Your task to perform on an android device: set an alarm Image 0: 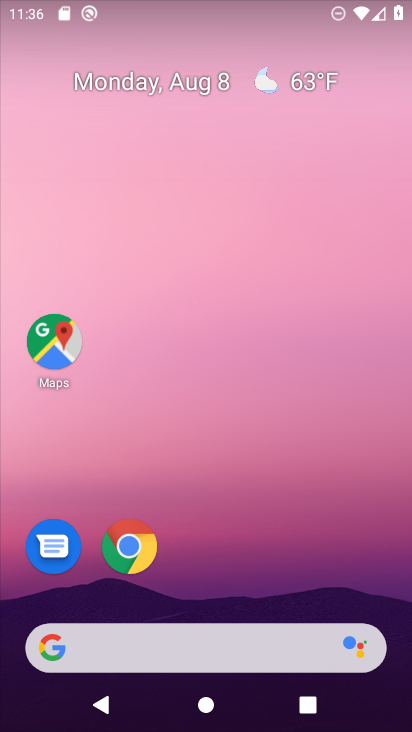
Step 0: press home button
Your task to perform on an android device: set an alarm Image 1: 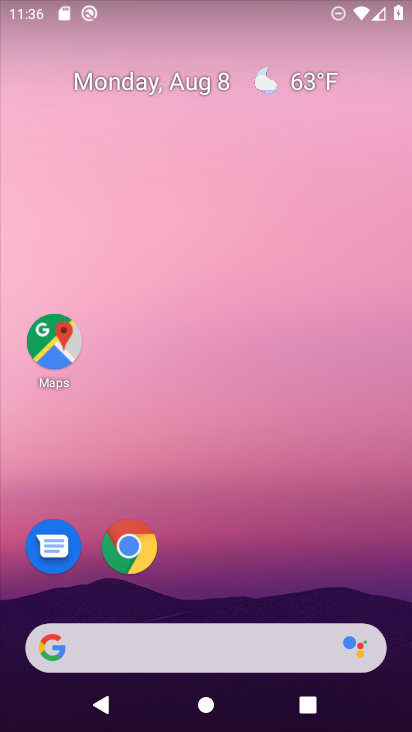
Step 1: drag from (213, 602) to (210, 56)
Your task to perform on an android device: set an alarm Image 2: 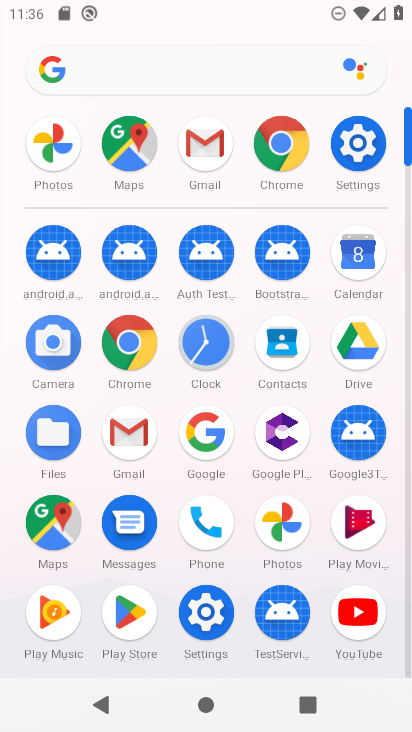
Step 2: click (203, 338)
Your task to perform on an android device: set an alarm Image 3: 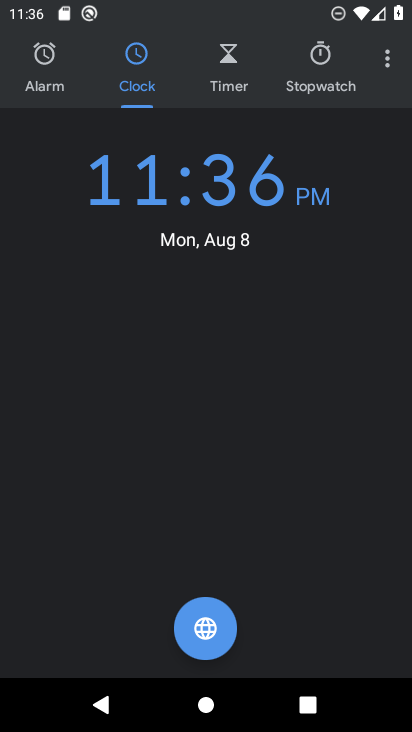
Step 3: click (43, 49)
Your task to perform on an android device: set an alarm Image 4: 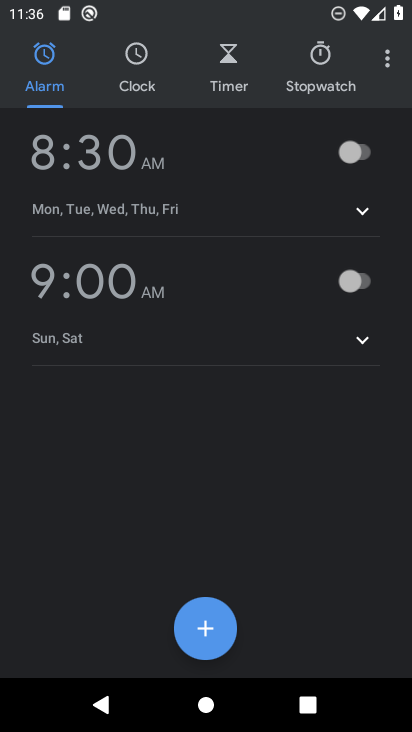
Step 4: click (359, 148)
Your task to perform on an android device: set an alarm Image 5: 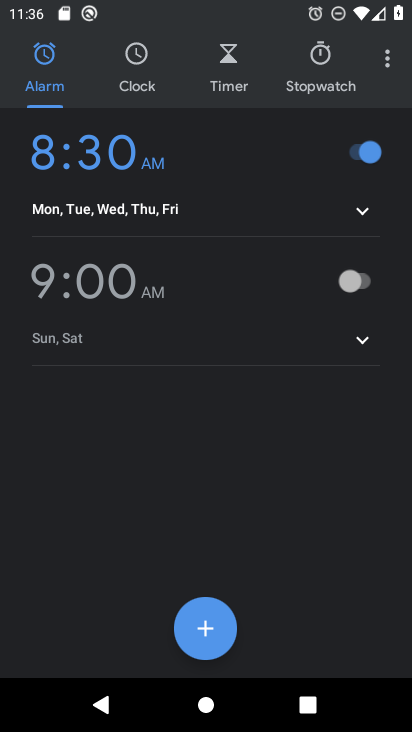
Step 5: task complete